Your task to perform on an android device: What's the news about the US president? Image 0: 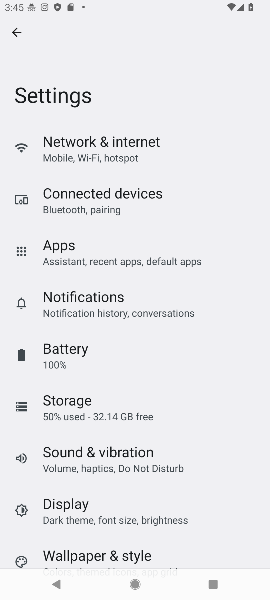
Step 0: press home button
Your task to perform on an android device: What's the news about the US president? Image 1: 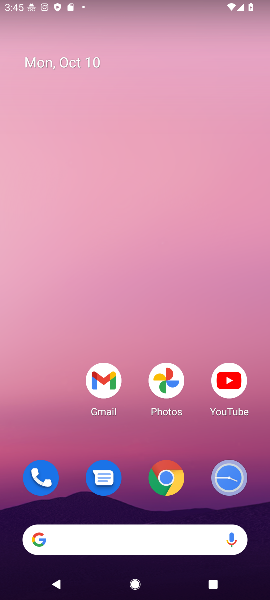
Step 1: click (168, 467)
Your task to perform on an android device: What's the news about the US president? Image 2: 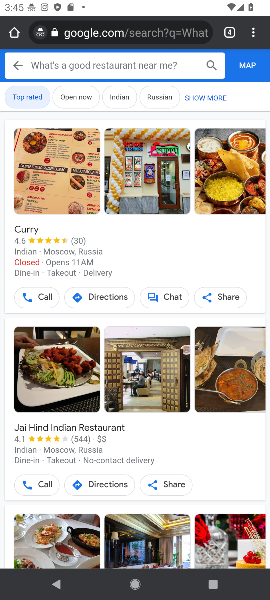
Step 2: click (145, 25)
Your task to perform on an android device: What's the news about the US president? Image 3: 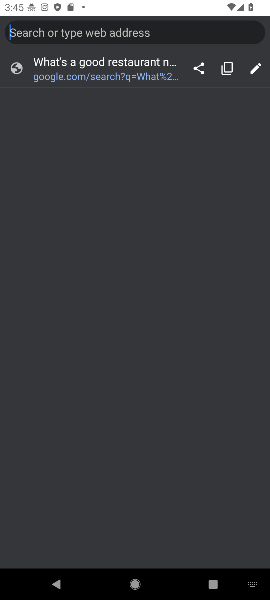
Step 3: type "What's the news about the US president?"
Your task to perform on an android device: What's the news about the US president? Image 4: 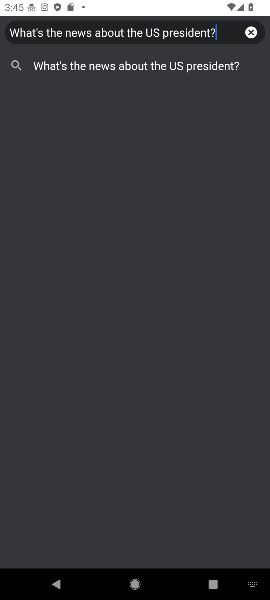
Step 4: click (221, 71)
Your task to perform on an android device: What's the news about the US president? Image 5: 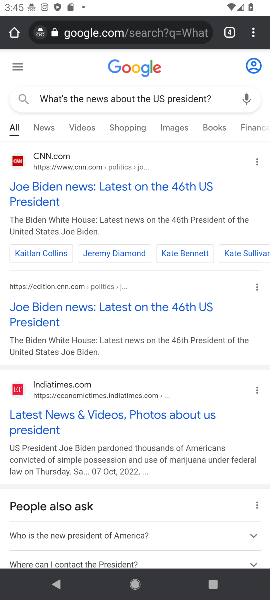
Step 5: click (57, 184)
Your task to perform on an android device: What's the news about the US president? Image 6: 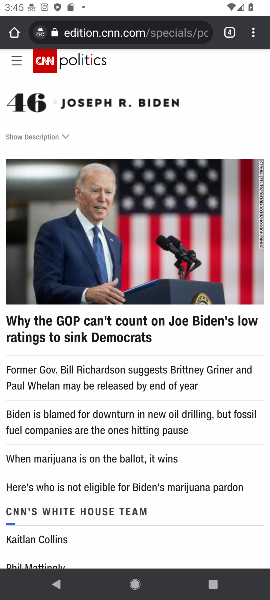
Step 6: task complete